Your task to perform on an android device: clear history in the chrome app Image 0: 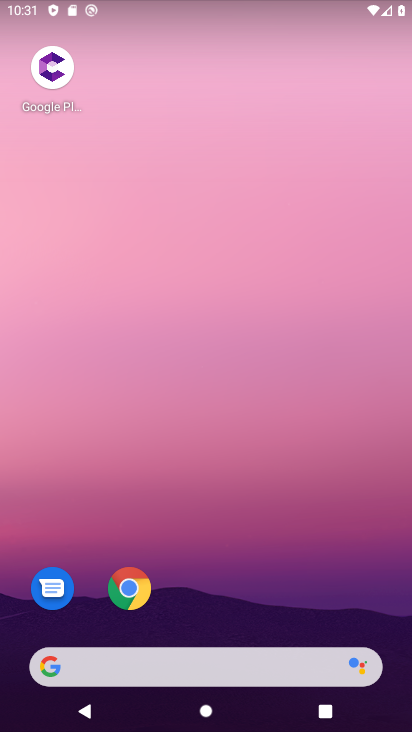
Step 0: click (137, 586)
Your task to perform on an android device: clear history in the chrome app Image 1: 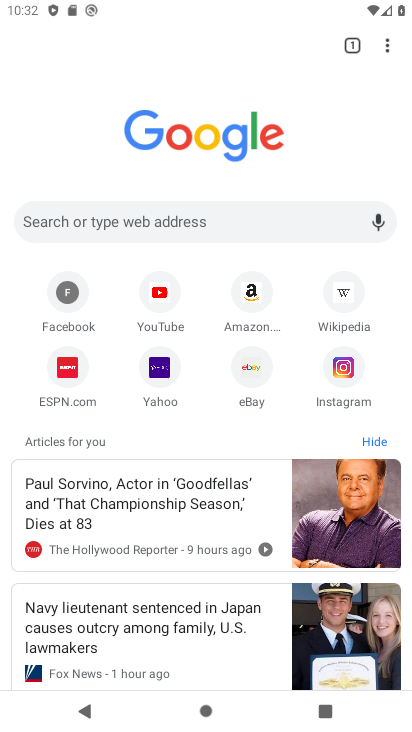
Step 1: click (391, 40)
Your task to perform on an android device: clear history in the chrome app Image 2: 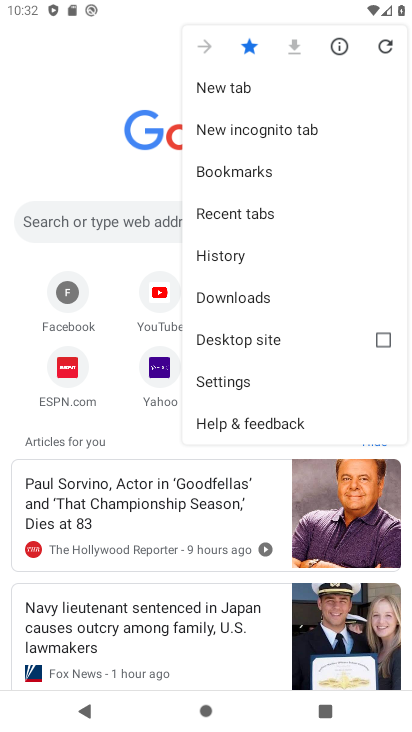
Step 2: click (265, 258)
Your task to perform on an android device: clear history in the chrome app Image 3: 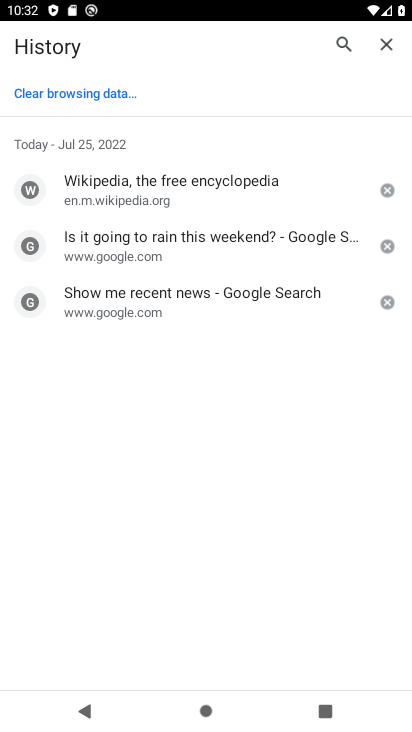
Step 3: click (68, 81)
Your task to perform on an android device: clear history in the chrome app Image 4: 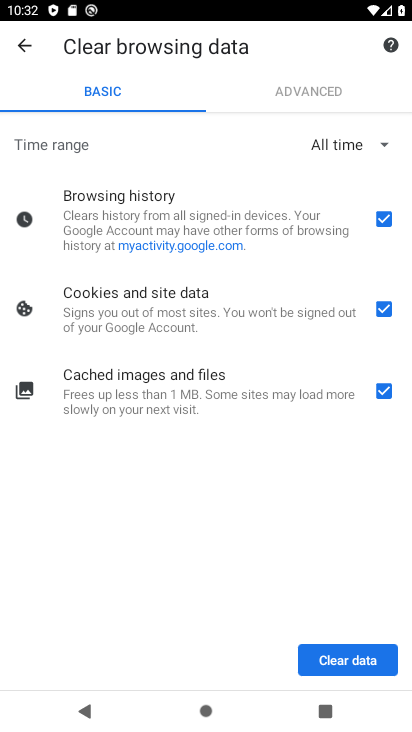
Step 4: click (338, 659)
Your task to perform on an android device: clear history in the chrome app Image 5: 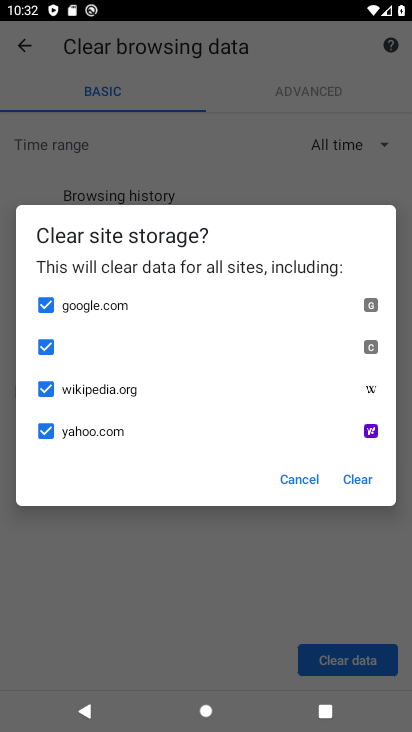
Step 5: click (367, 482)
Your task to perform on an android device: clear history in the chrome app Image 6: 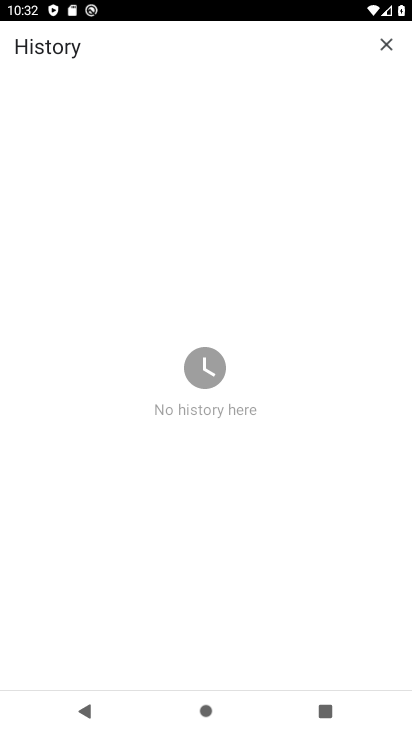
Step 6: task complete